Your task to perform on an android device: Do I have any events this weekend? Image 0: 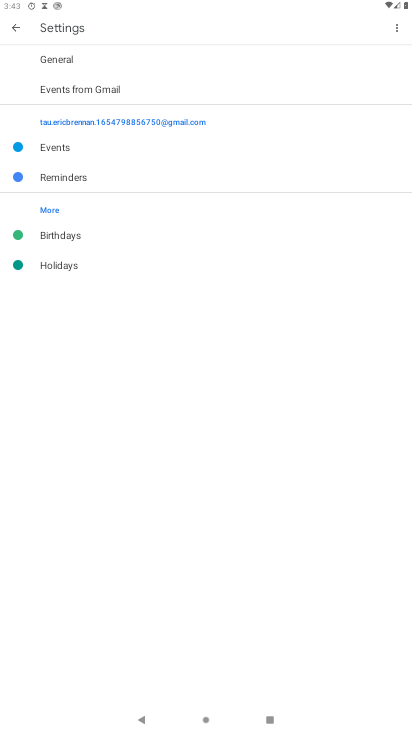
Step 0: press home button
Your task to perform on an android device: Do I have any events this weekend? Image 1: 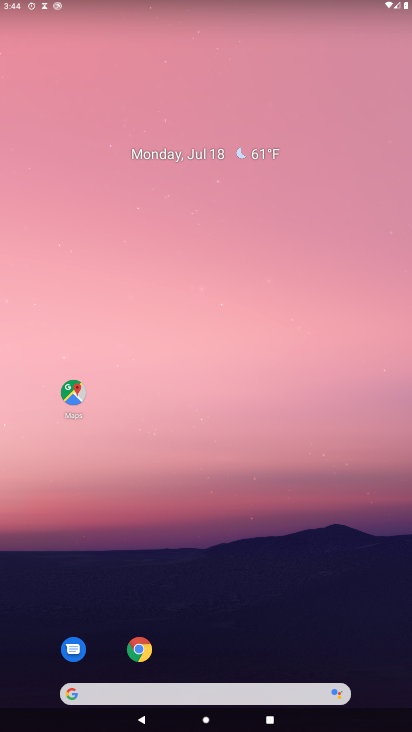
Step 1: drag from (52, 654) to (285, 191)
Your task to perform on an android device: Do I have any events this weekend? Image 2: 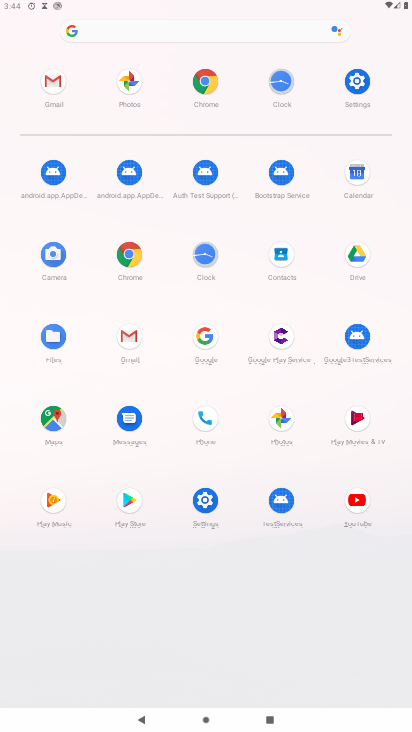
Step 2: click (354, 177)
Your task to perform on an android device: Do I have any events this weekend? Image 3: 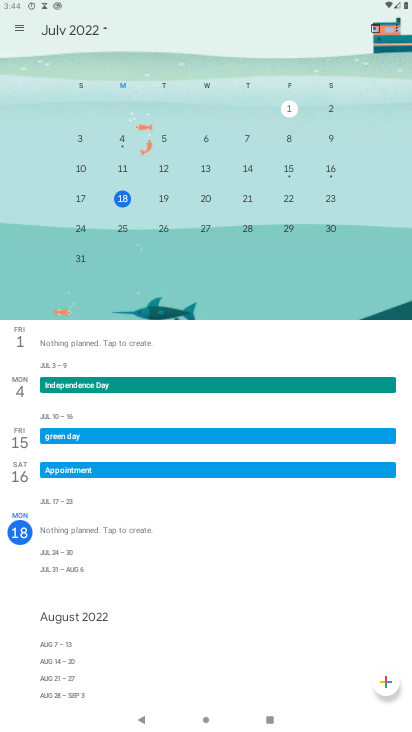
Step 3: task complete